Your task to perform on an android device: clear all cookies in the chrome app Image 0: 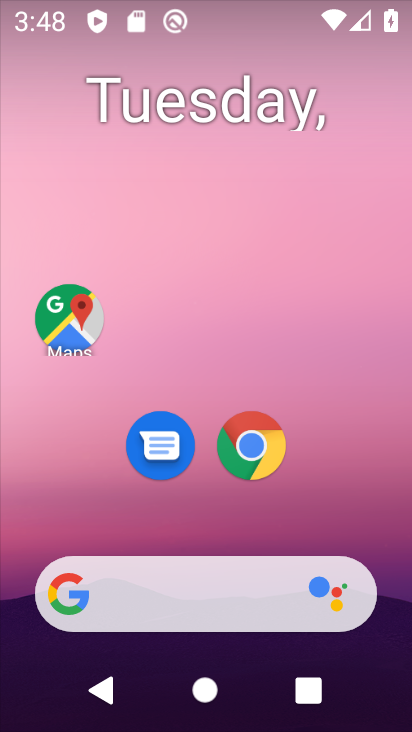
Step 0: click (258, 449)
Your task to perform on an android device: clear all cookies in the chrome app Image 1: 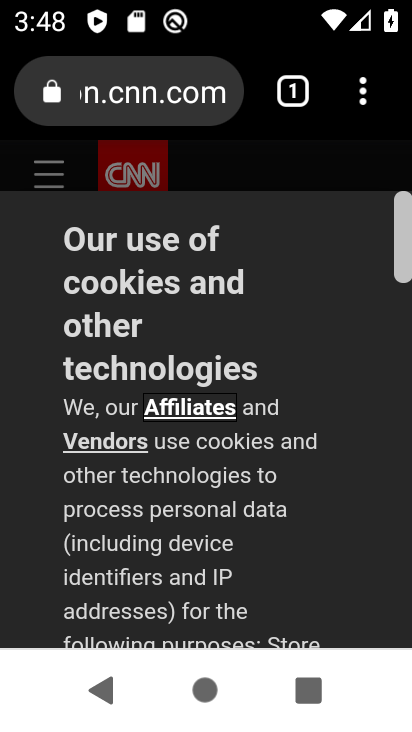
Step 1: click (258, 449)
Your task to perform on an android device: clear all cookies in the chrome app Image 2: 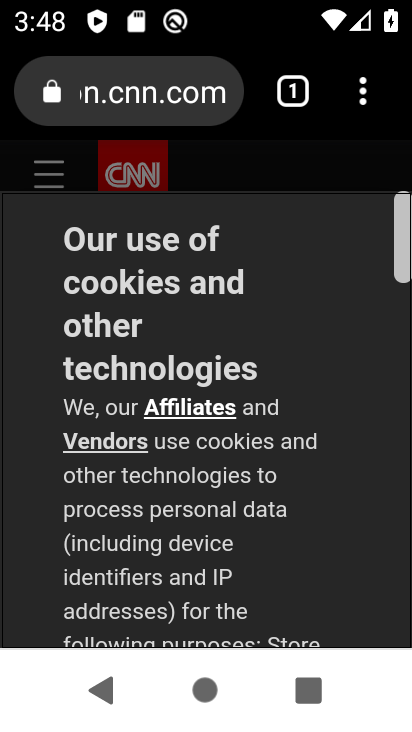
Step 2: click (372, 96)
Your task to perform on an android device: clear all cookies in the chrome app Image 3: 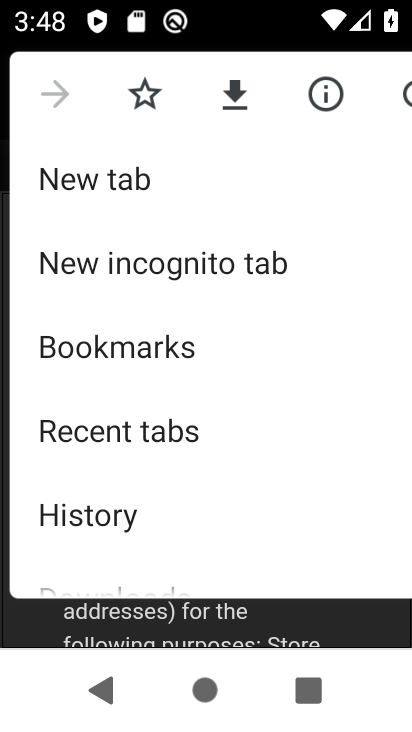
Step 3: drag from (185, 520) to (197, 324)
Your task to perform on an android device: clear all cookies in the chrome app Image 4: 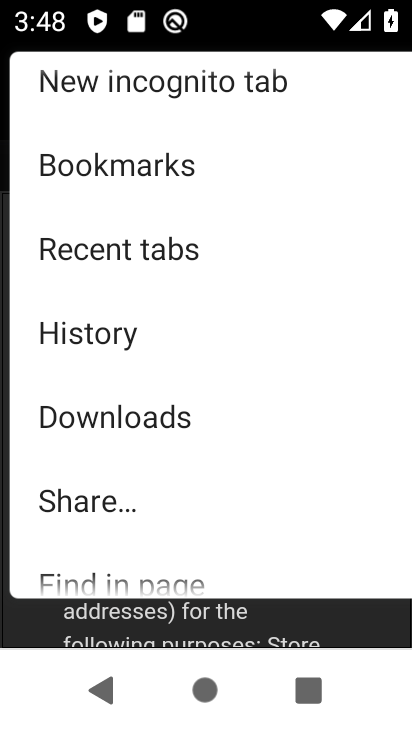
Step 4: drag from (163, 541) to (185, 333)
Your task to perform on an android device: clear all cookies in the chrome app Image 5: 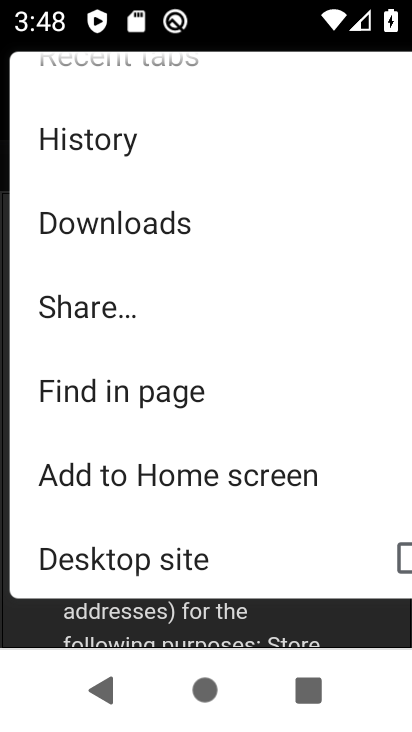
Step 5: drag from (197, 520) to (201, 303)
Your task to perform on an android device: clear all cookies in the chrome app Image 6: 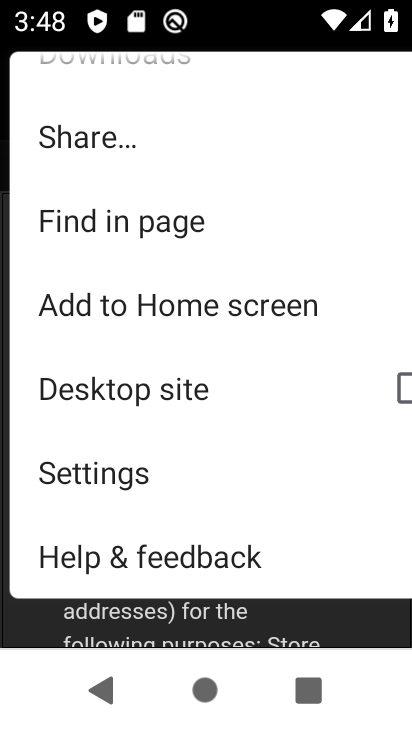
Step 6: click (208, 467)
Your task to perform on an android device: clear all cookies in the chrome app Image 7: 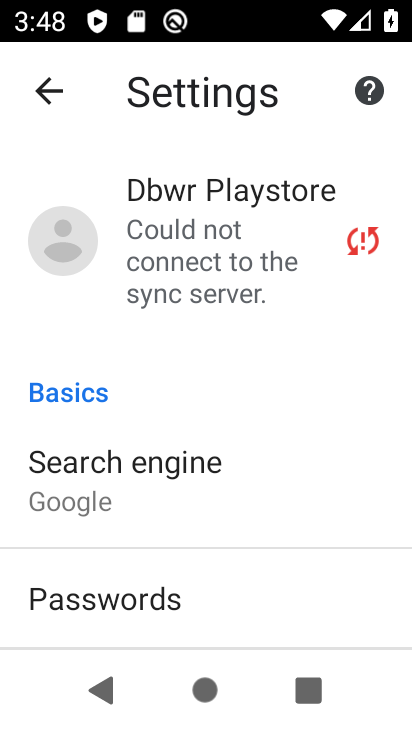
Step 7: drag from (163, 549) to (200, 374)
Your task to perform on an android device: clear all cookies in the chrome app Image 8: 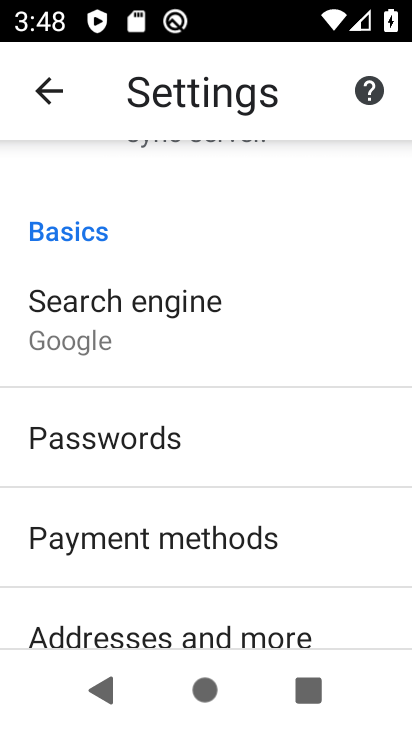
Step 8: drag from (184, 528) to (223, 353)
Your task to perform on an android device: clear all cookies in the chrome app Image 9: 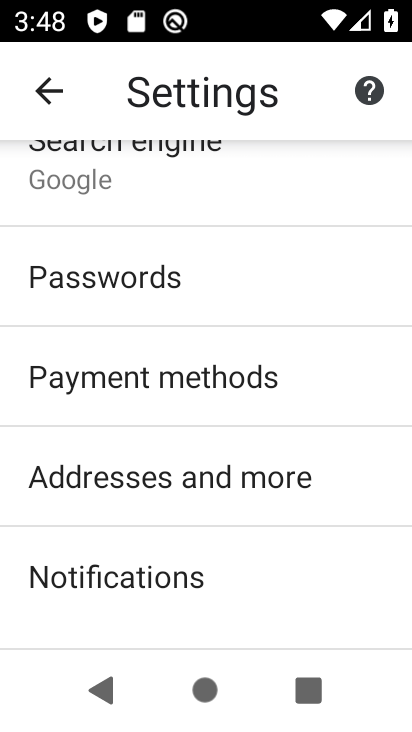
Step 9: drag from (216, 522) to (266, 324)
Your task to perform on an android device: clear all cookies in the chrome app Image 10: 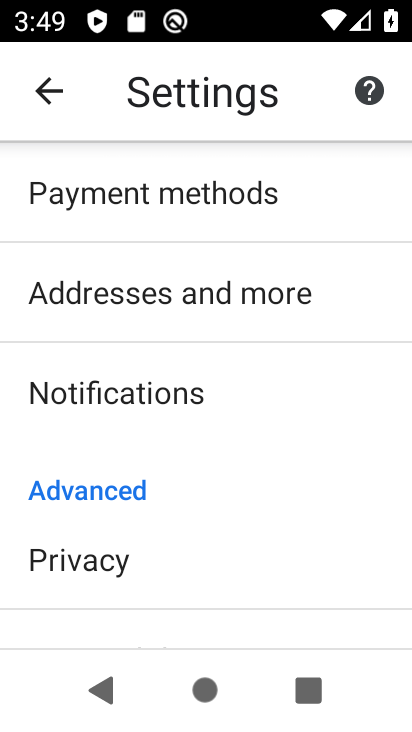
Step 10: click (118, 558)
Your task to perform on an android device: clear all cookies in the chrome app Image 11: 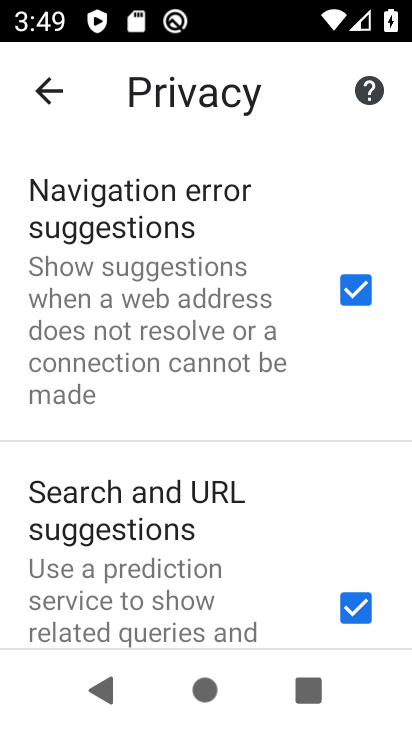
Step 11: task complete